Your task to perform on an android device: turn off translation in the chrome app Image 0: 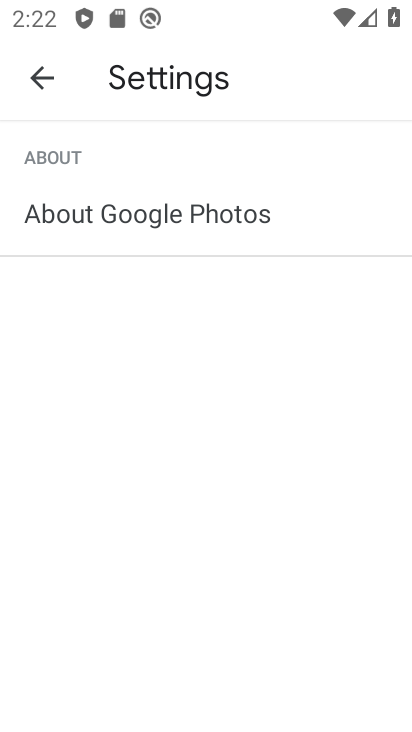
Step 0: press home button
Your task to perform on an android device: turn off translation in the chrome app Image 1: 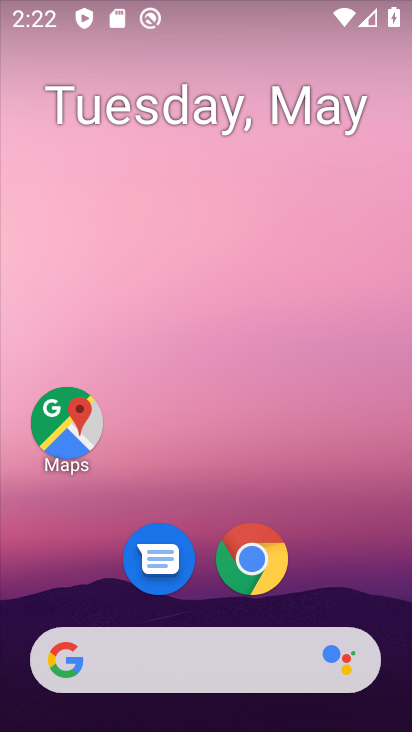
Step 1: click (250, 573)
Your task to perform on an android device: turn off translation in the chrome app Image 2: 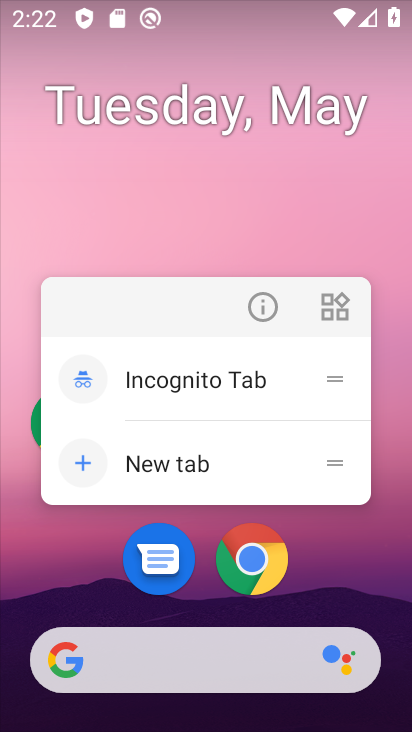
Step 2: click (251, 546)
Your task to perform on an android device: turn off translation in the chrome app Image 3: 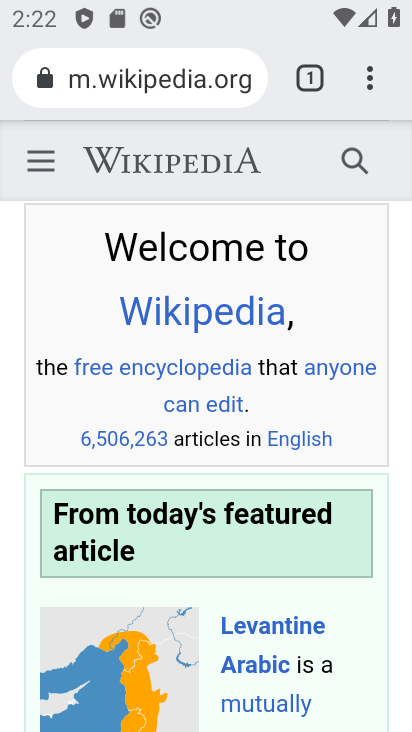
Step 3: click (372, 68)
Your task to perform on an android device: turn off translation in the chrome app Image 4: 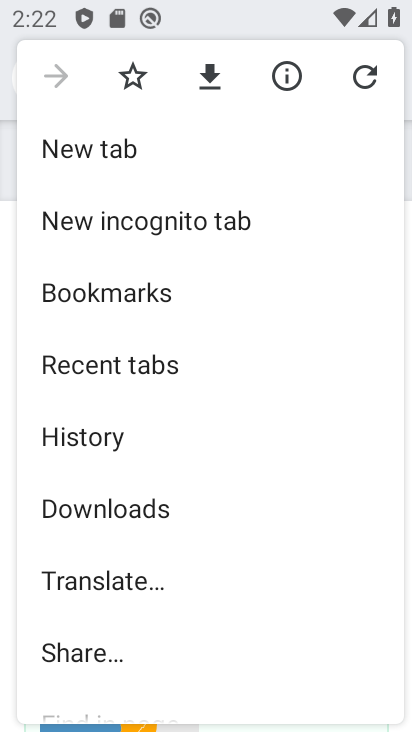
Step 4: drag from (210, 621) to (229, 312)
Your task to perform on an android device: turn off translation in the chrome app Image 5: 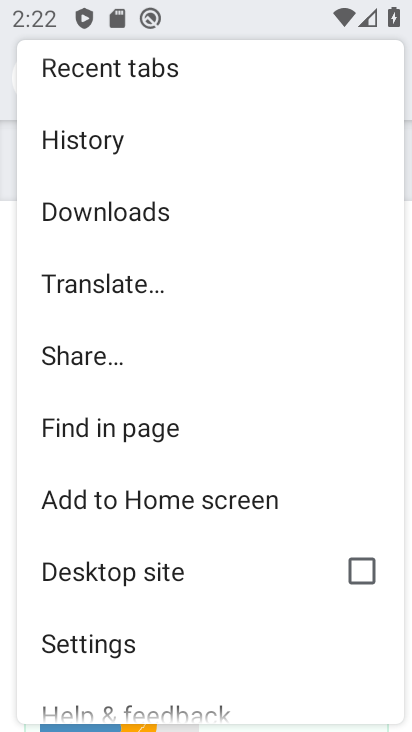
Step 5: click (79, 648)
Your task to perform on an android device: turn off translation in the chrome app Image 6: 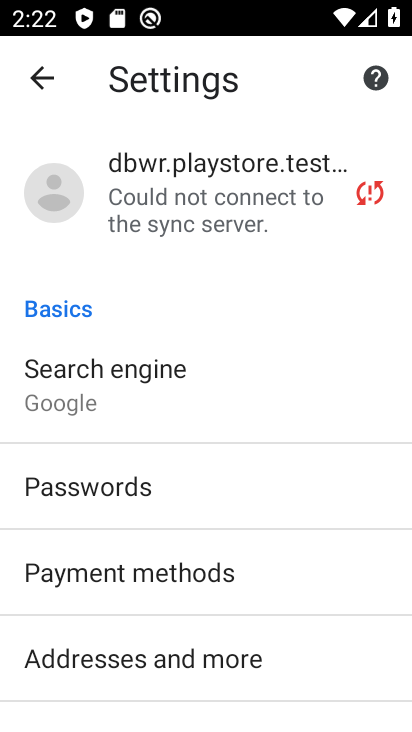
Step 6: drag from (146, 609) to (150, 292)
Your task to perform on an android device: turn off translation in the chrome app Image 7: 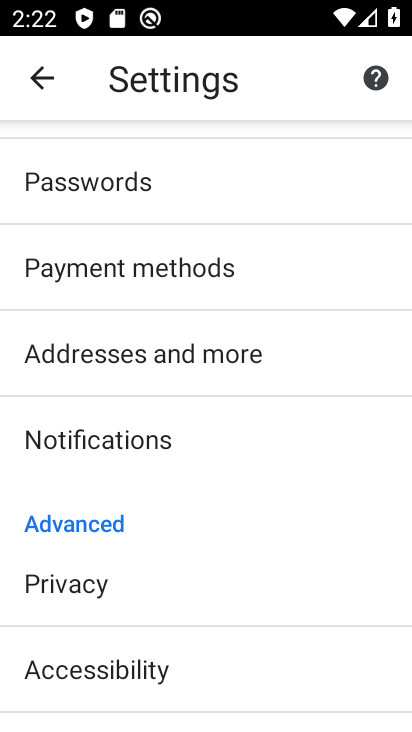
Step 7: drag from (191, 657) to (207, 315)
Your task to perform on an android device: turn off translation in the chrome app Image 8: 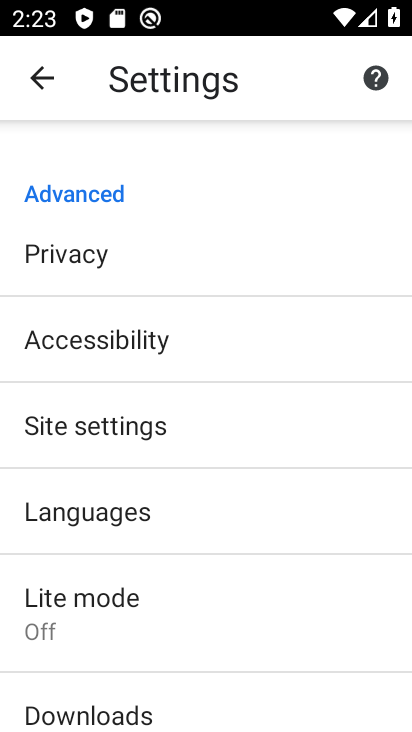
Step 8: click (166, 509)
Your task to perform on an android device: turn off translation in the chrome app Image 9: 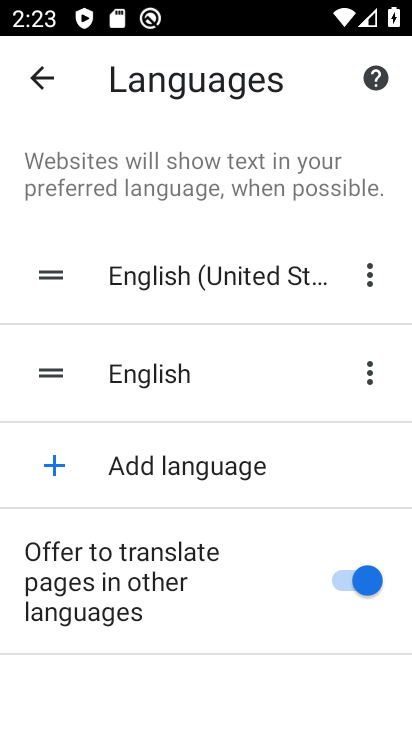
Step 9: click (330, 577)
Your task to perform on an android device: turn off translation in the chrome app Image 10: 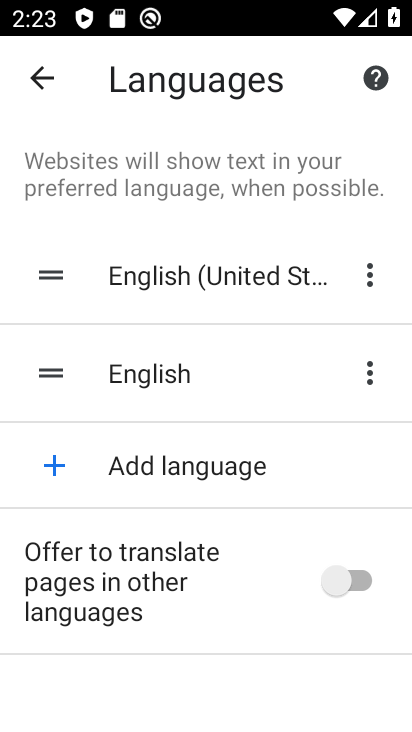
Step 10: task complete